Your task to perform on an android device: check the backup settings in the google photos Image 0: 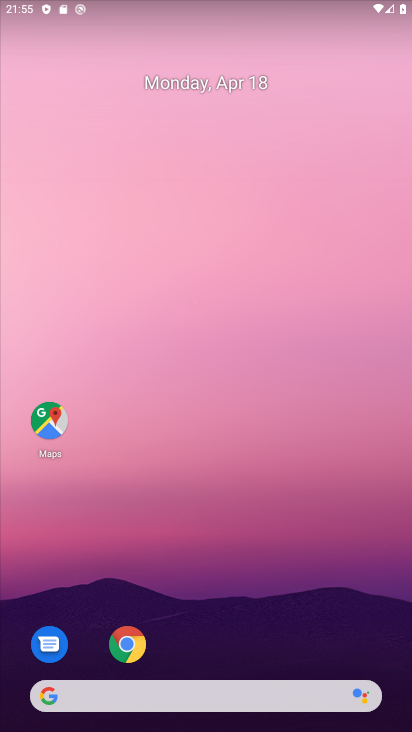
Step 0: drag from (199, 669) to (270, 225)
Your task to perform on an android device: check the backup settings in the google photos Image 1: 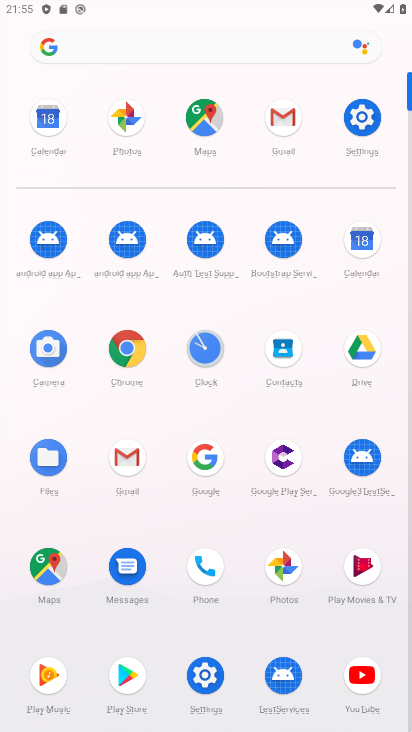
Step 1: click (280, 573)
Your task to perform on an android device: check the backup settings in the google photos Image 2: 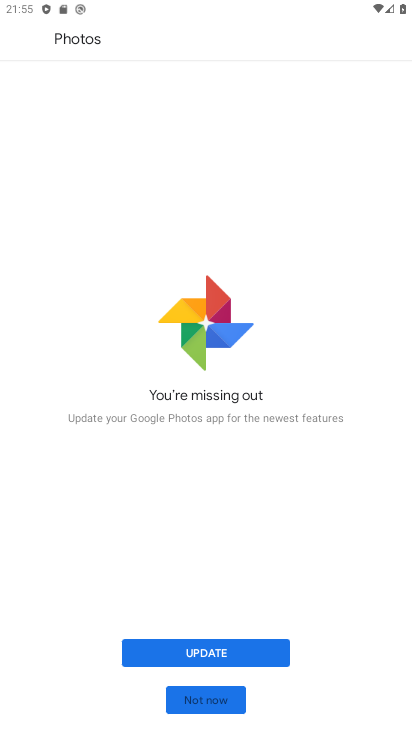
Step 2: click (208, 699)
Your task to perform on an android device: check the backup settings in the google photos Image 3: 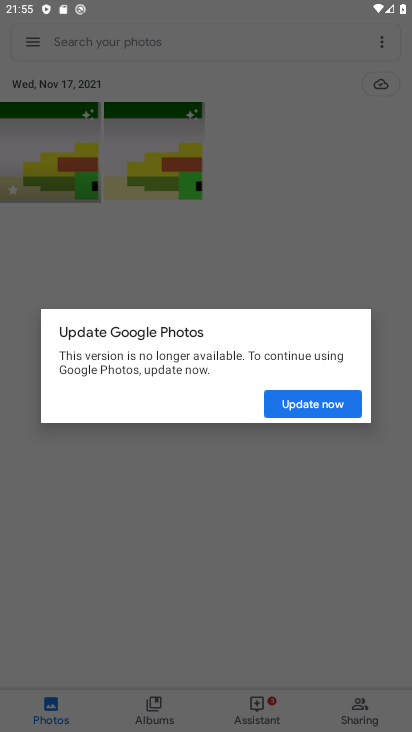
Step 3: click (291, 410)
Your task to perform on an android device: check the backup settings in the google photos Image 4: 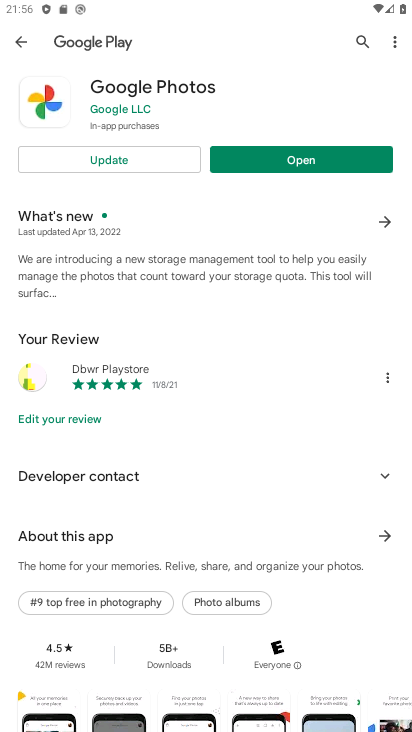
Step 4: click (280, 160)
Your task to perform on an android device: check the backup settings in the google photos Image 5: 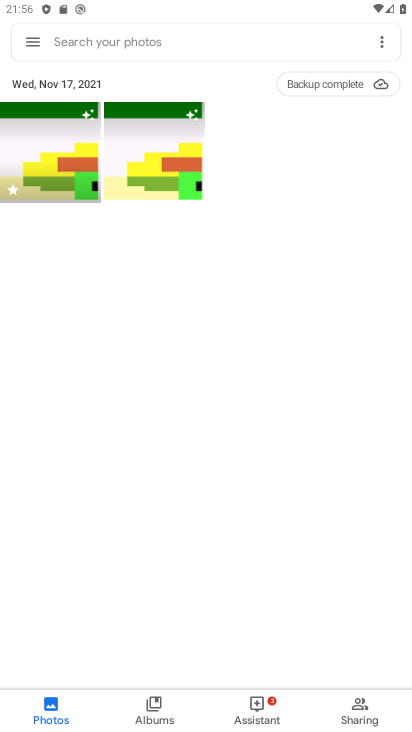
Step 5: click (31, 37)
Your task to perform on an android device: check the backup settings in the google photos Image 6: 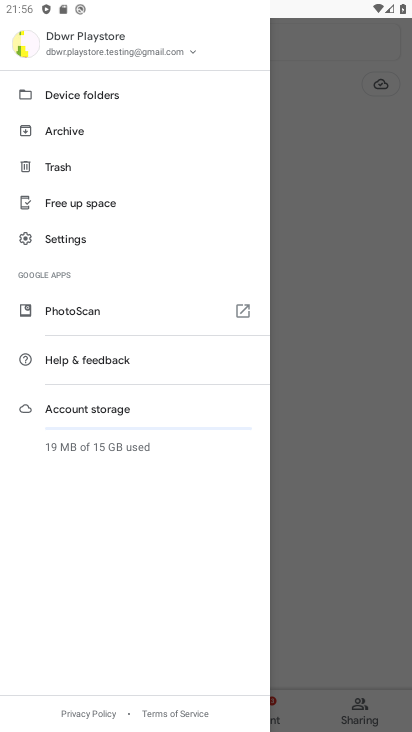
Step 6: click (64, 235)
Your task to perform on an android device: check the backup settings in the google photos Image 7: 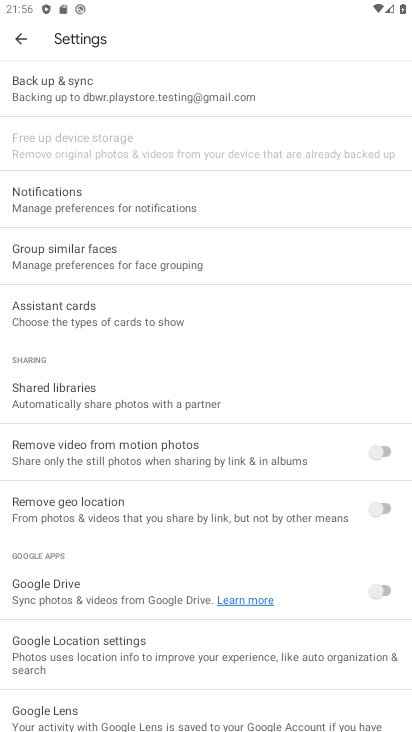
Step 7: click (110, 79)
Your task to perform on an android device: check the backup settings in the google photos Image 8: 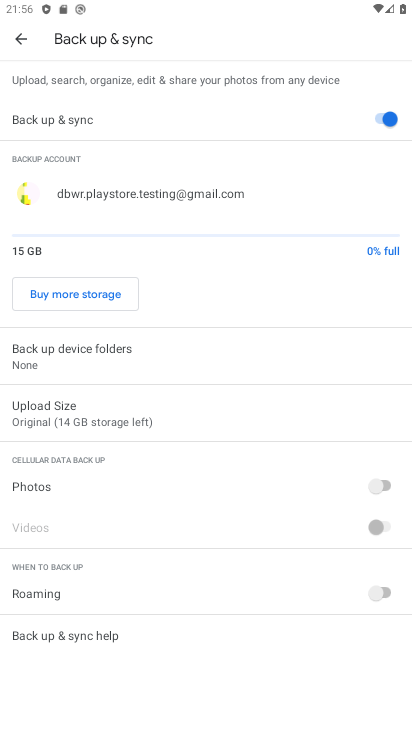
Step 8: task complete